Your task to perform on an android device: Go to settings Image 0: 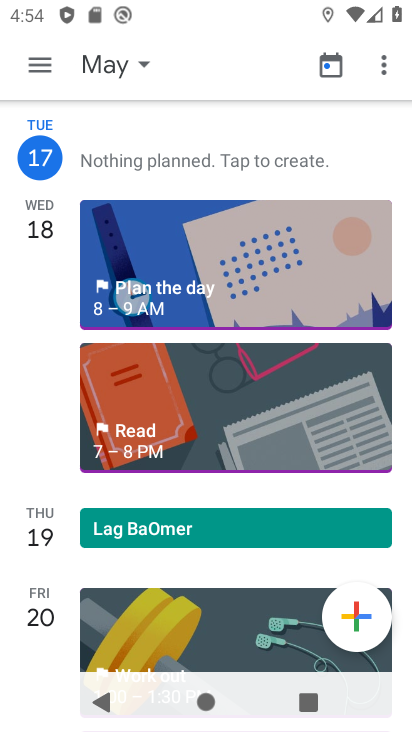
Step 0: press back button
Your task to perform on an android device: Go to settings Image 1: 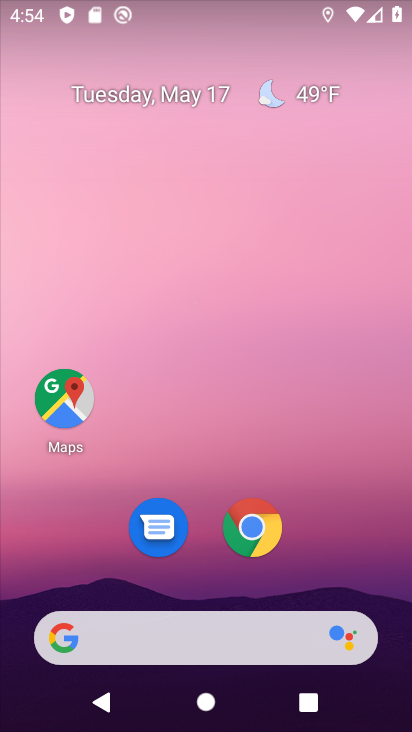
Step 1: drag from (304, 556) to (230, 12)
Your task to perform on an android device: Go to settings Image 2: 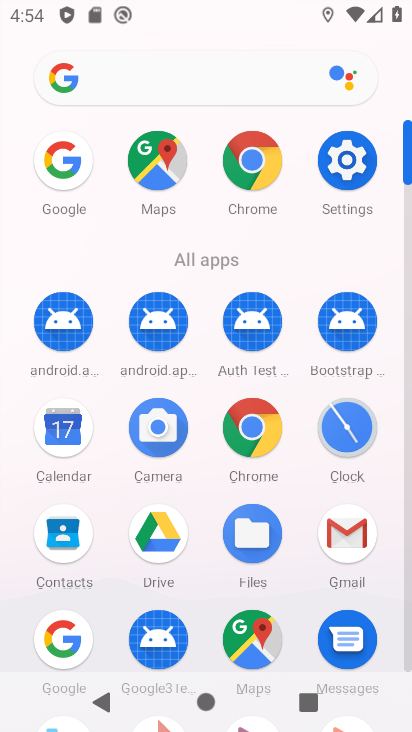
Step 2: drag from (25, 523) to (19, 244)
Your task to perform on an android device: Go to settings Image 3: 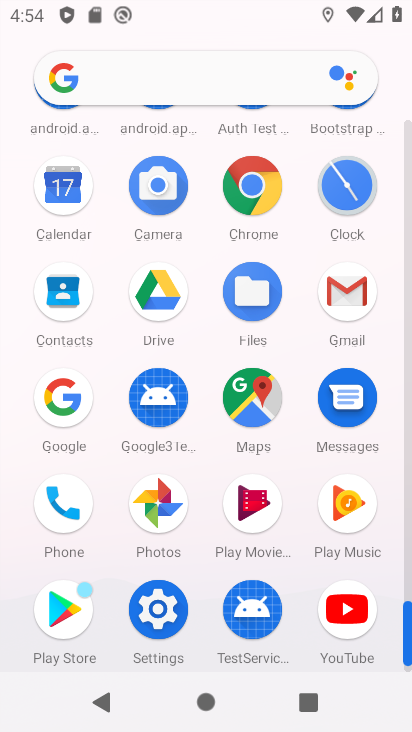
Step 3: click (160, 609)
Your task to perform on an android device: Go to settings Image 4: 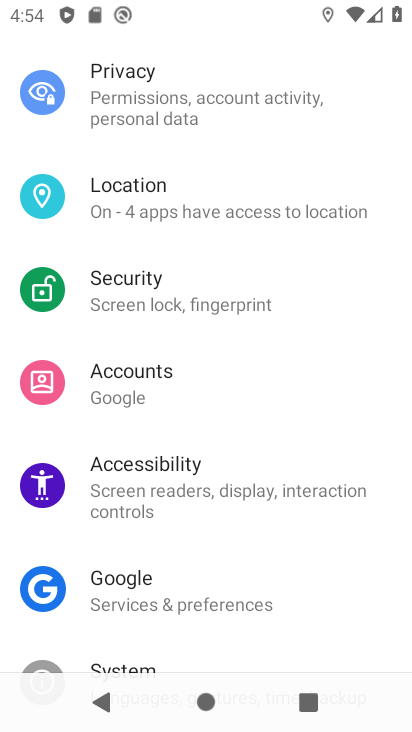
Step 4: task complete